Your task to perform on an android device: change keyboard looks Image 0: 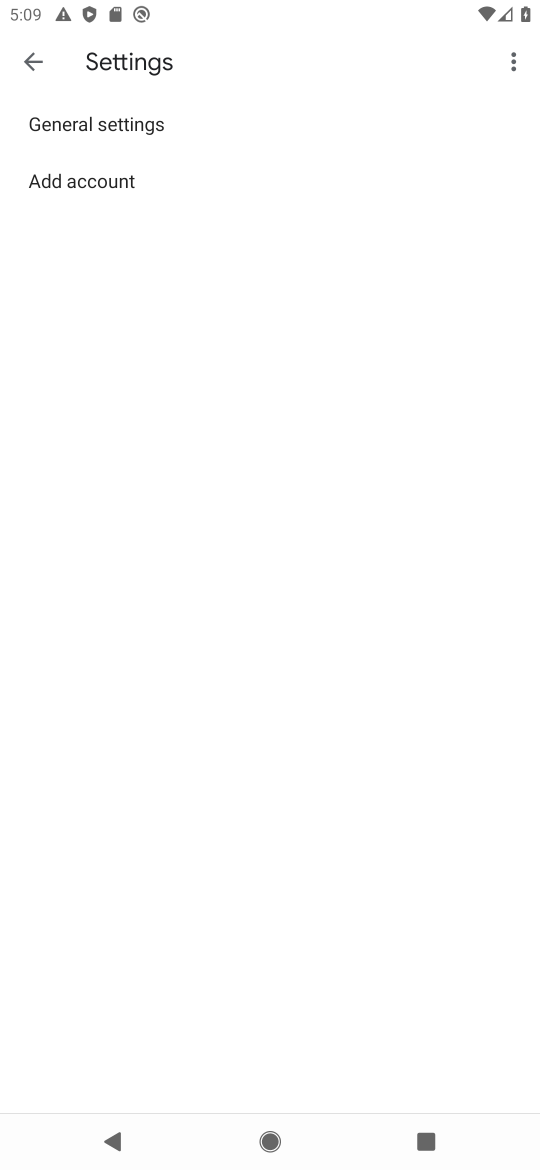
Step 0: press home button
Your task to perform on an android device: change keyboard looks Image 1: 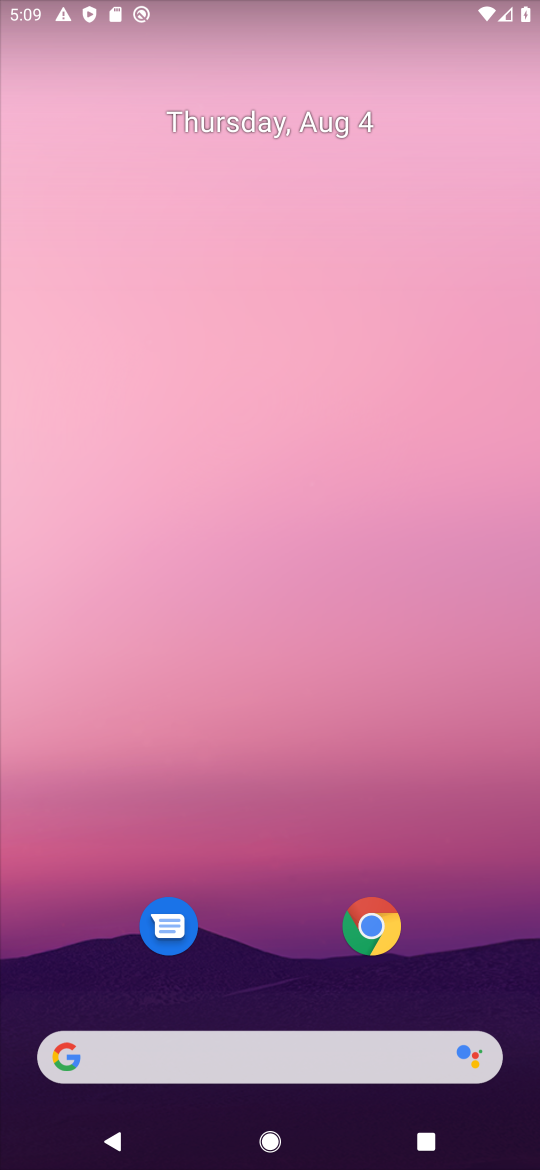
Step 1: drag from (535, 963) to (444, 363)
Your task to perform on an android device: change keyboard looks Image 2: 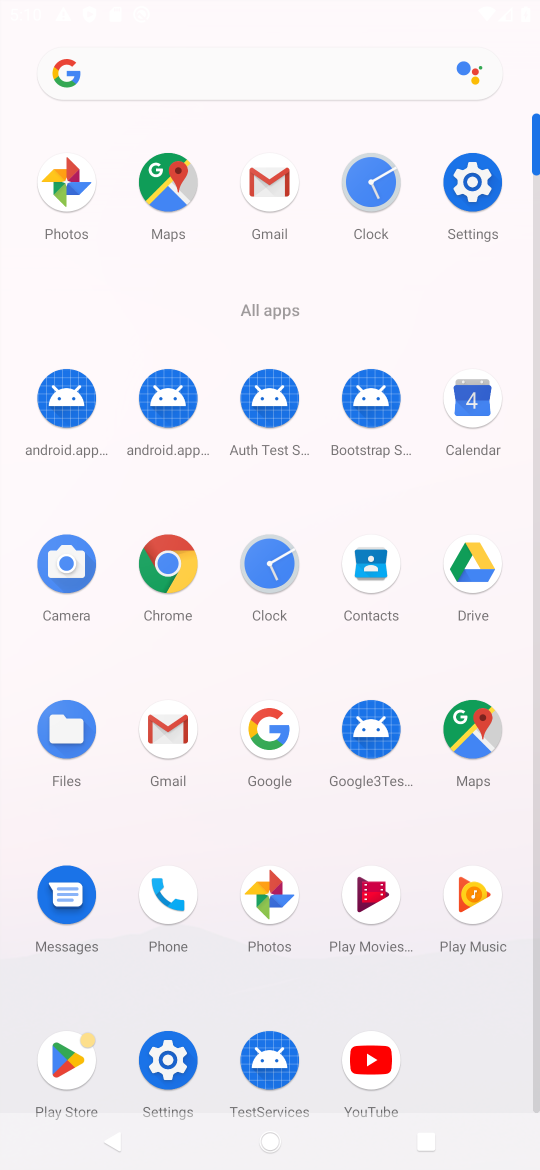
Step 2: click (479, 191)
Your task to perform on an android device: change keyboard looks Image 3: 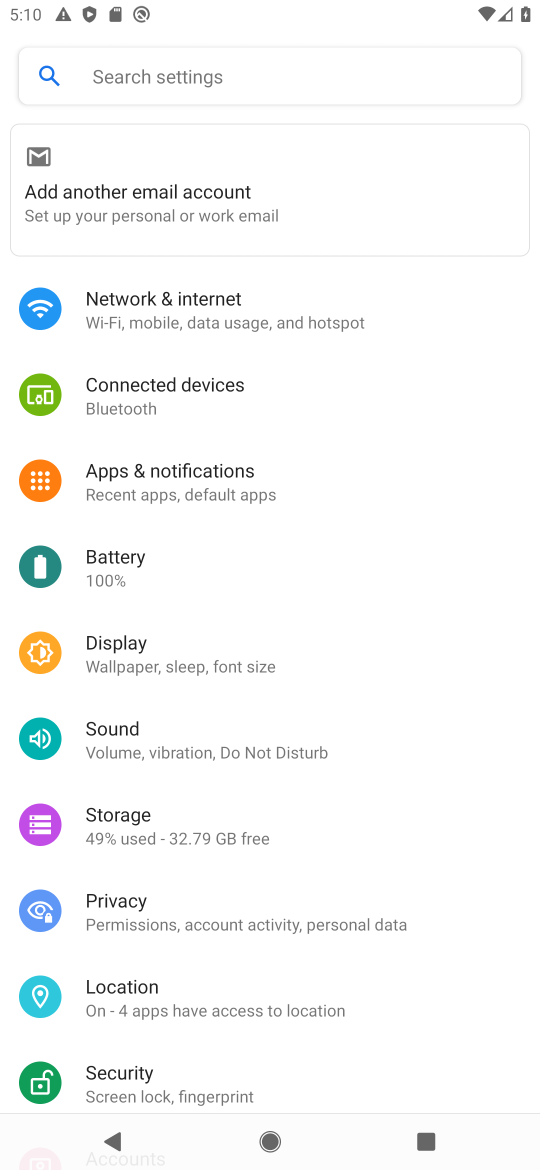
Step 3: drag from (381, 1003) to (283, 220)
Your task to perform on an android device: change keyboard looks Image 4: 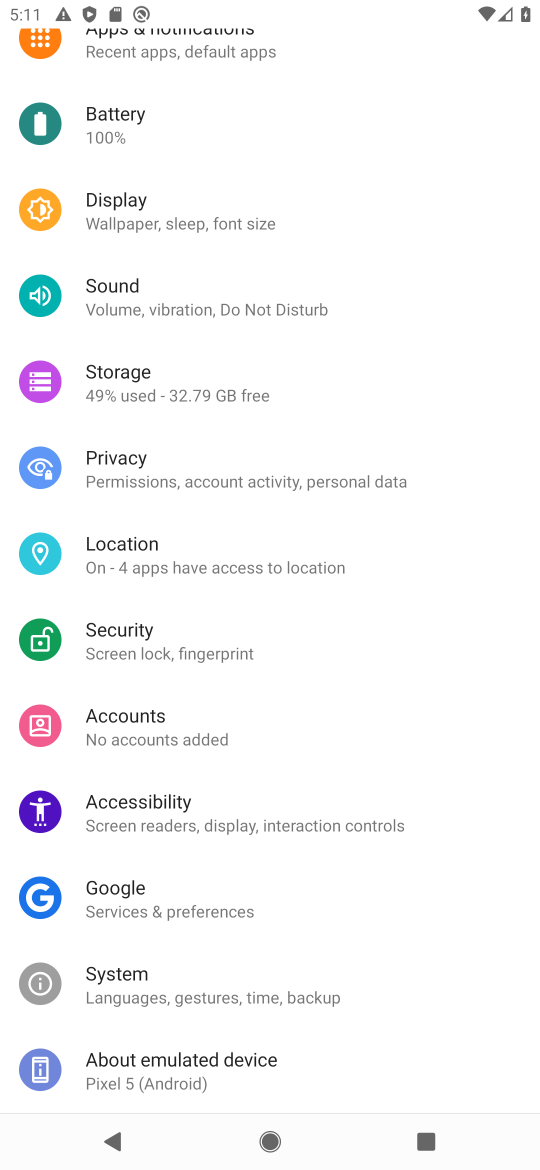
Step 4: drag from (457, 874) to (378, 517)
Your task to perform on an android device: change keyboard looks Image 5: 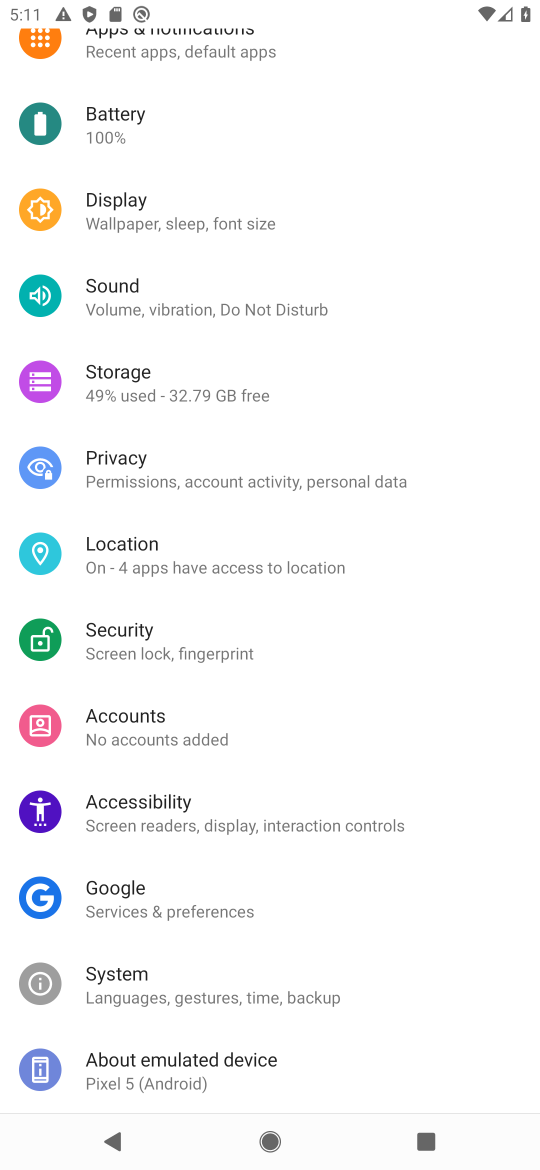
Step 5: click (215, 998)
Your task to perform on an android device: change keyboard looks Image 6: 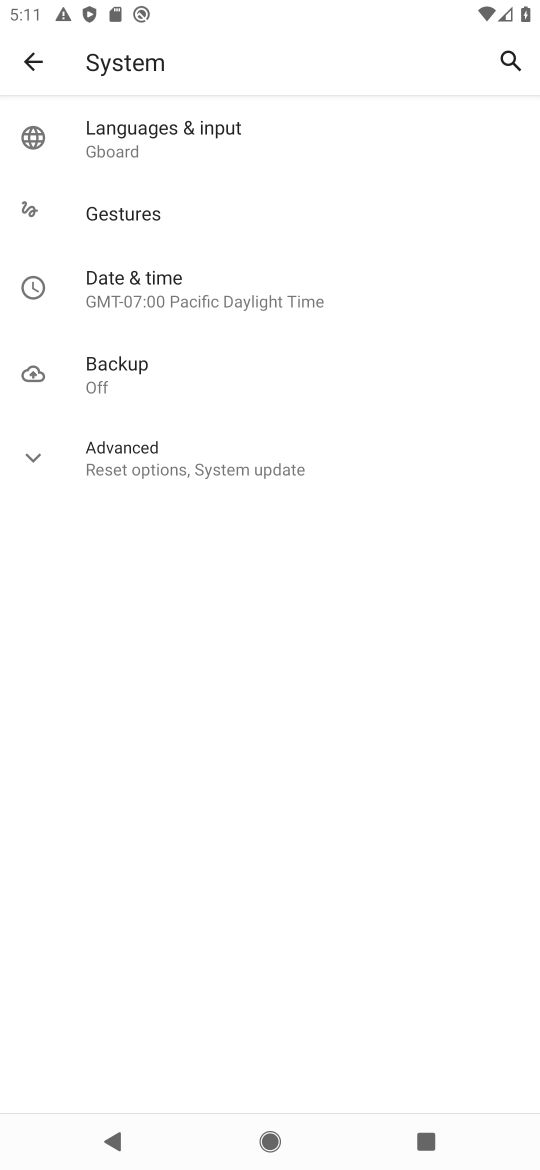
Step 6: click (173, 139)
Your task to perform on an android device: change keyboard looks Image 7: 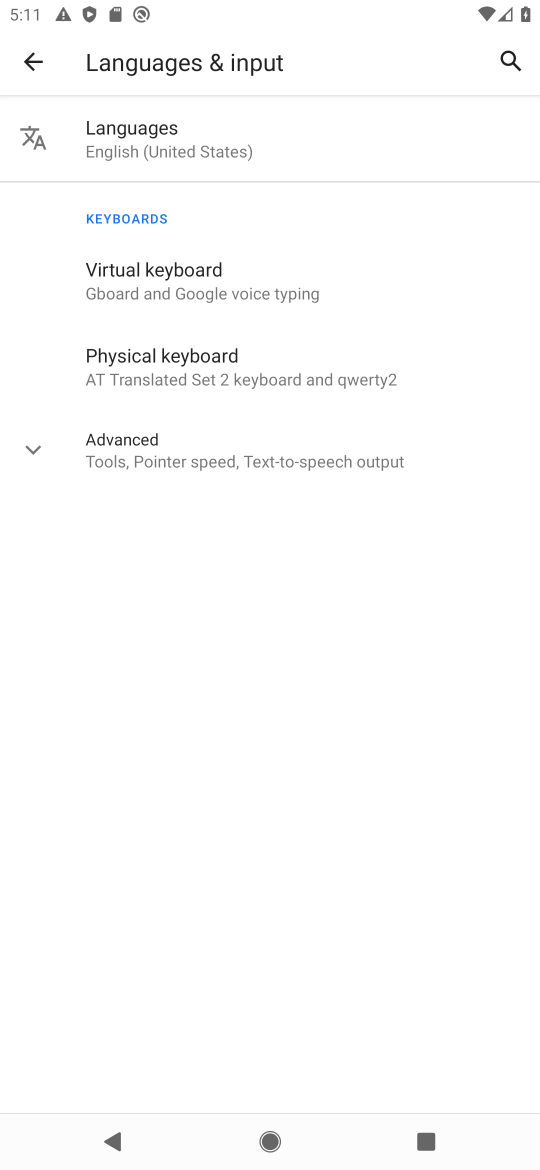
Step 7: click (174, 155)
Your task to perform on an android device: change keyboard looks Image 8: 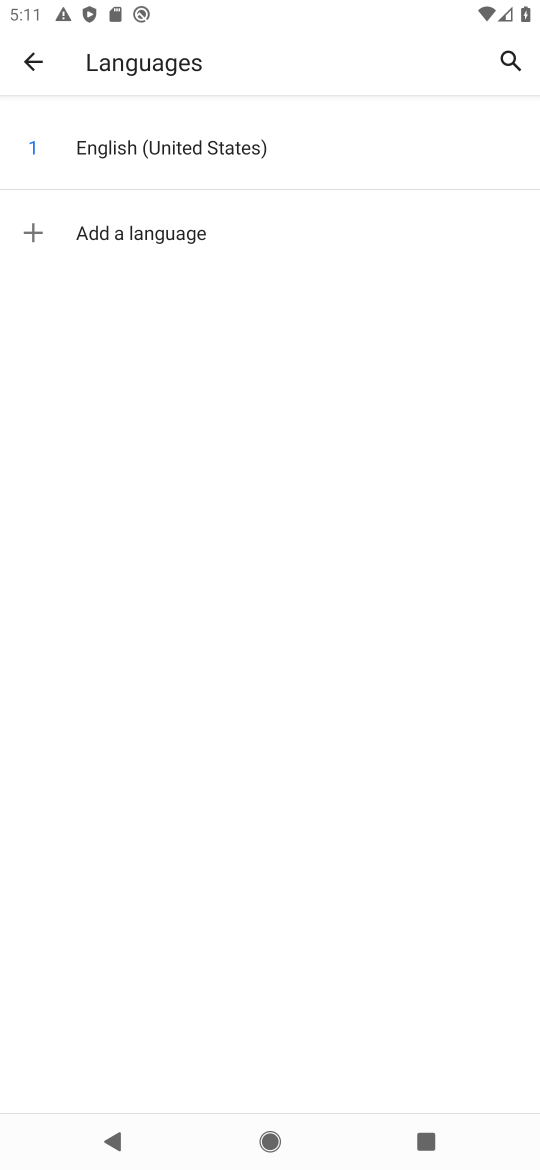
Step 8: click (29, 60)
Your task to perform on an android device: change keyboard looks Image 9: 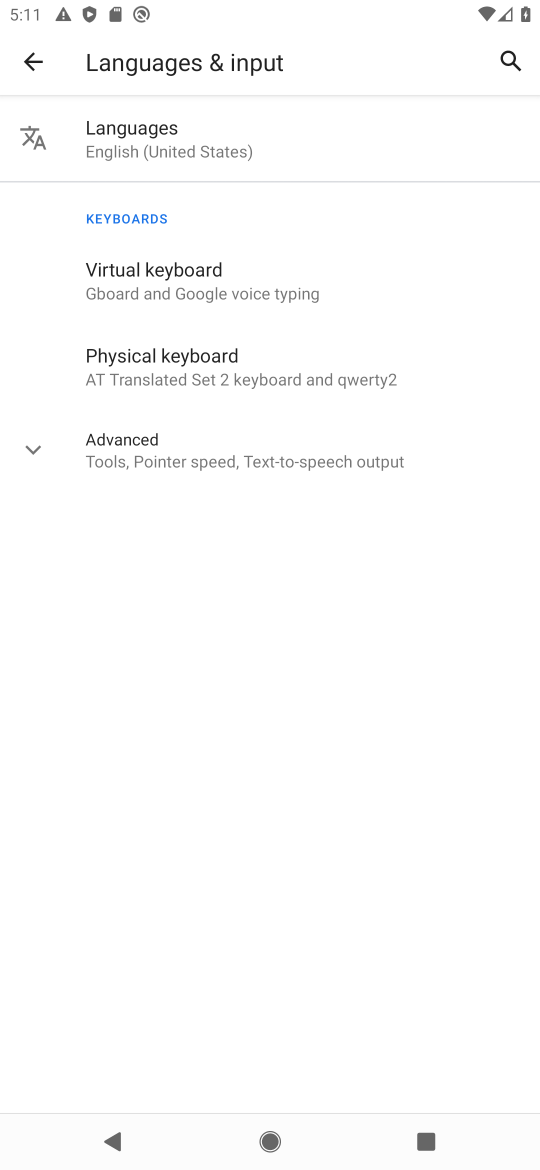
Step 9: click (168, 298)
Your task to perform on an android device: change keyboard looks Image 10: 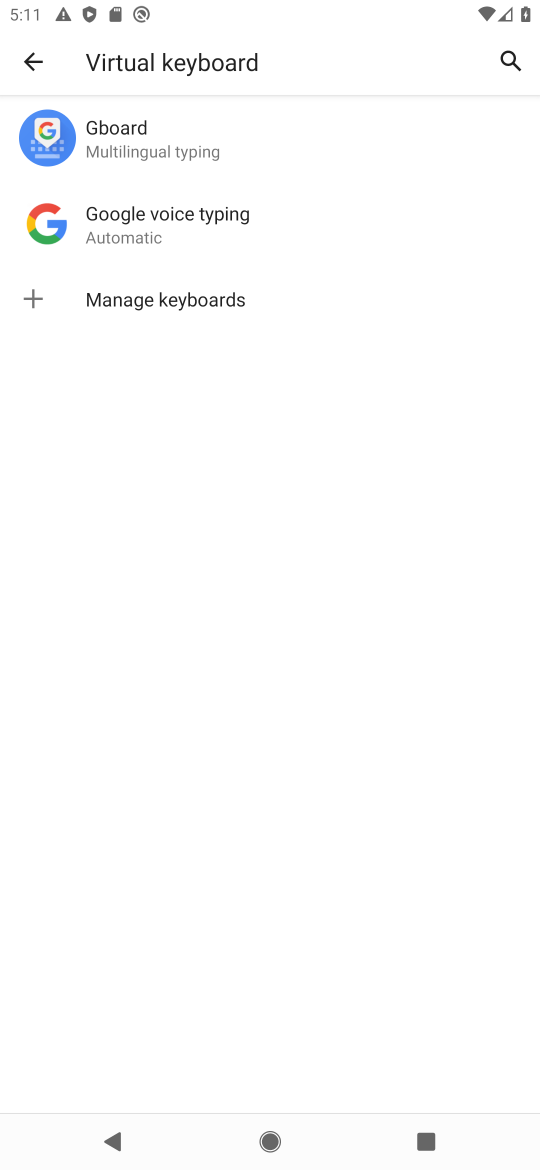
Step 10: click (236, 129)
Your task to perform on an android device: change keyboard looks Image 11: 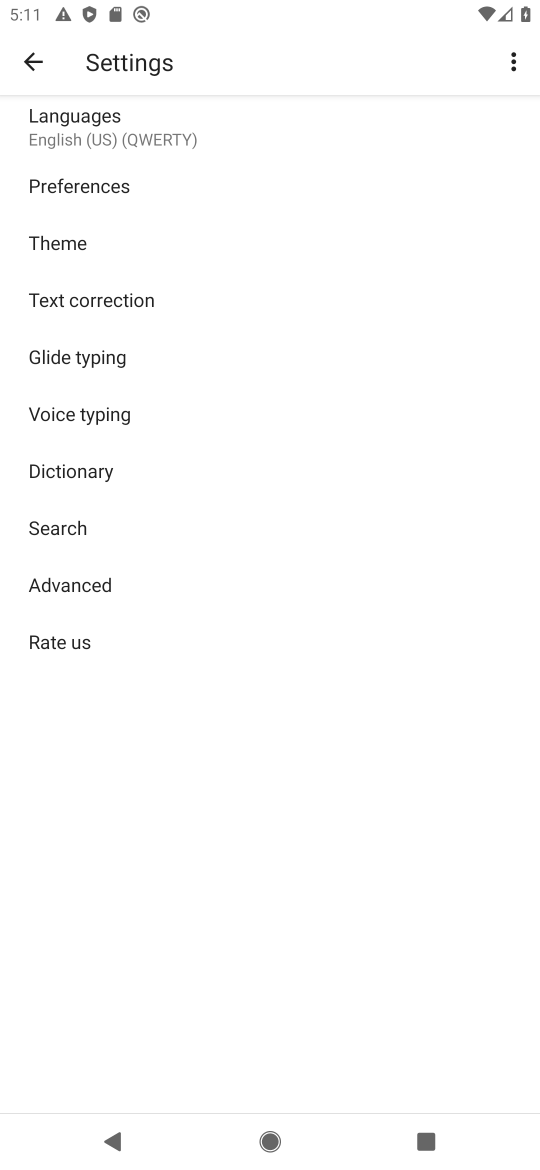
Step 11: click (87, 252)
Your task to perform on an android device: change keyboard looks Image 12: 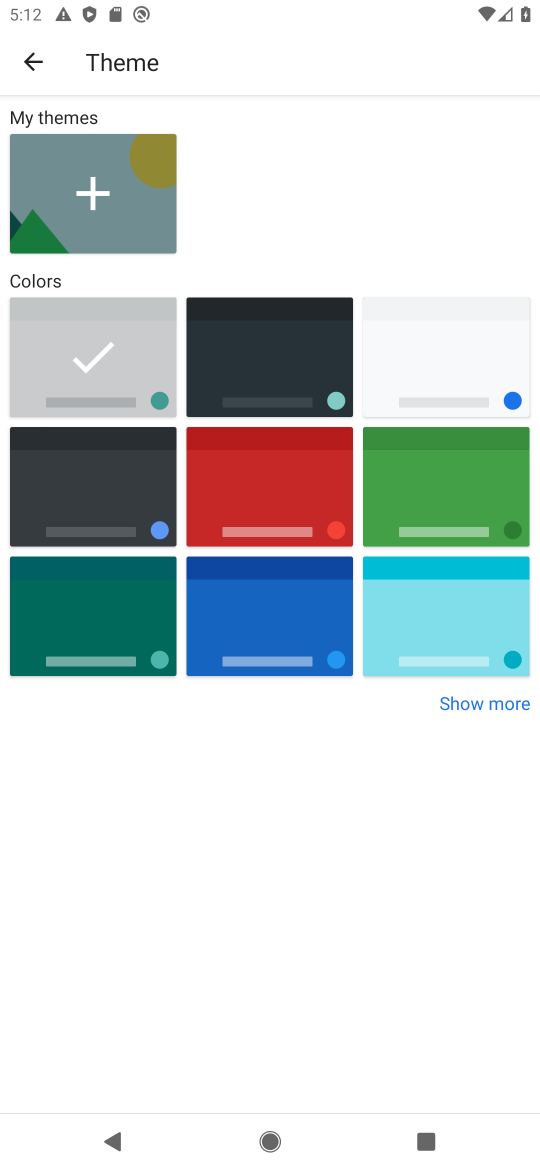
Step 12: click (323, 368)
Your task to perform on an android device: change keyboard looks Image 13: 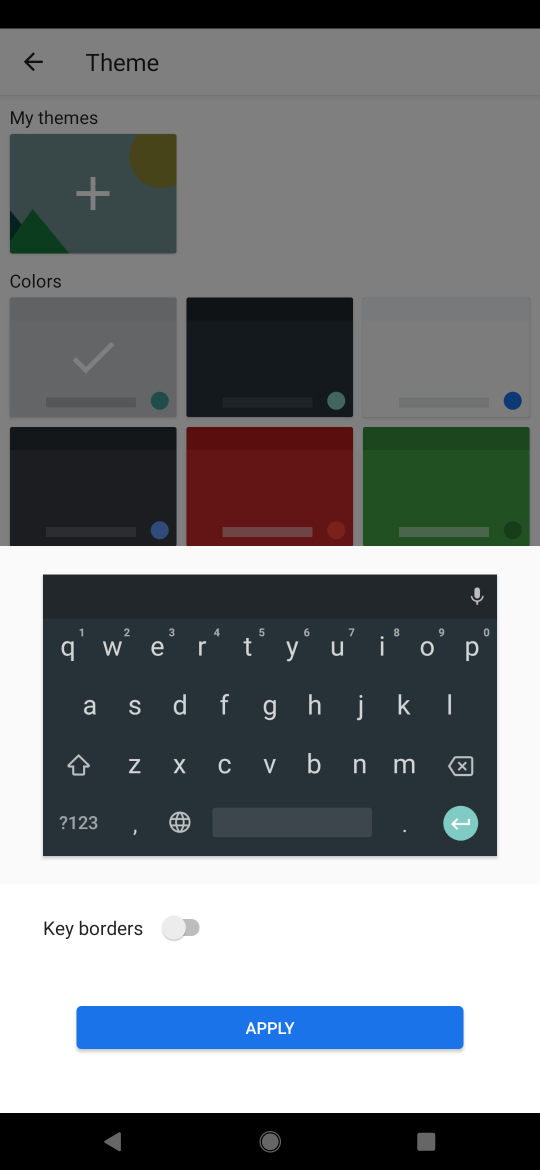
Step 13: click (393, 1023)
Your task to perform on an android device: change keyboard looks Image 14: 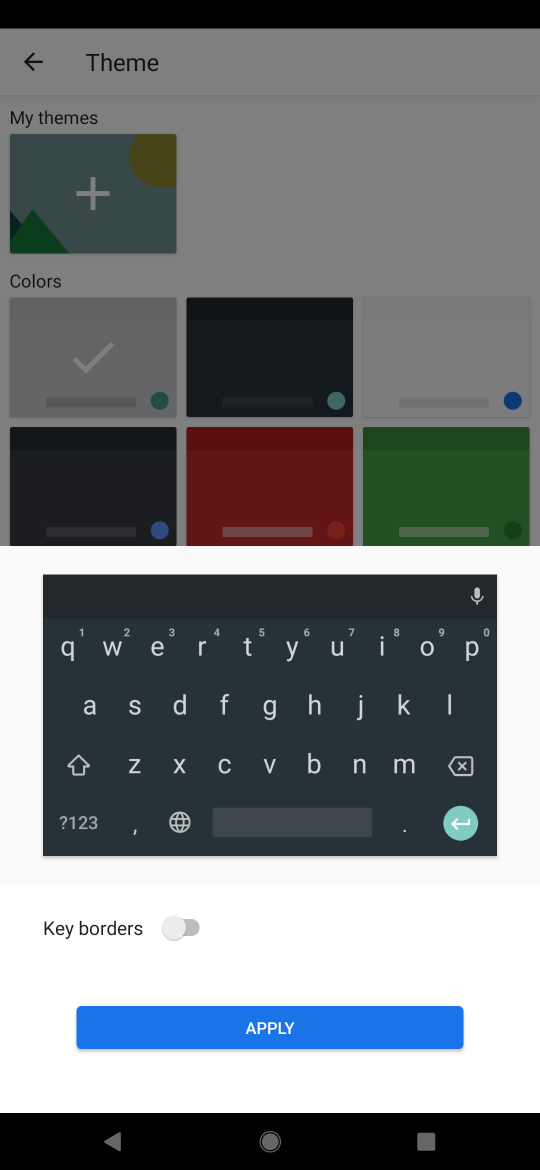
Step 14: click (393, 1023)
Your task to perform on an android device: change keyboard looks Image 15: 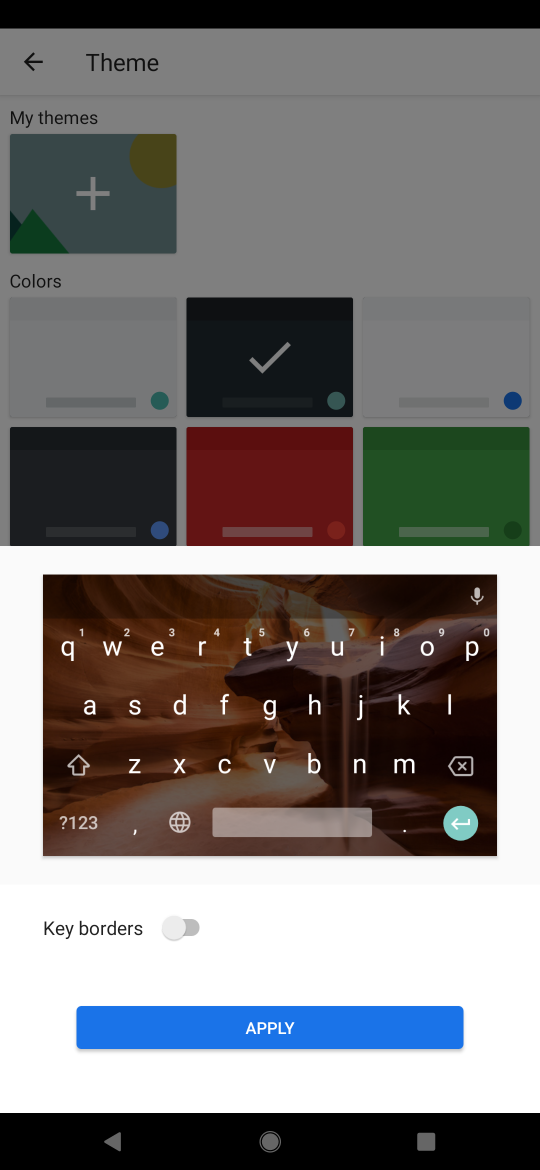
Step 15: click (356, 1041)
Your task to perform on an android device: change keyboard looks Image 16: 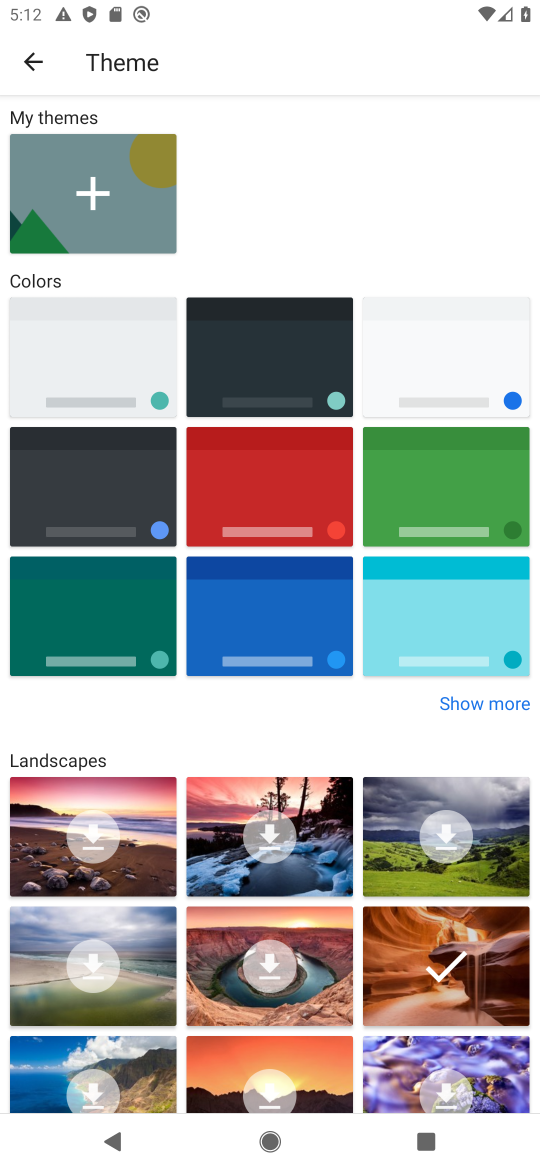
Step 16: task complete